Your task to perform on an android device: toggle data saver in the chrome app Image 0: 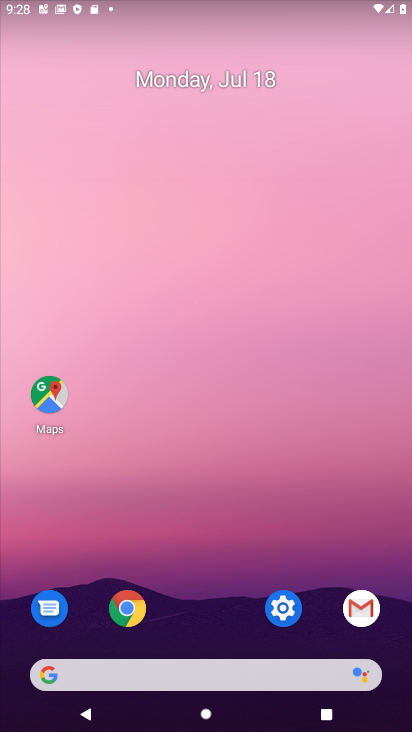
Step 0: click (147, 598)
Your task to perform on an android device: toggle data saver in the chrome app Image 1: 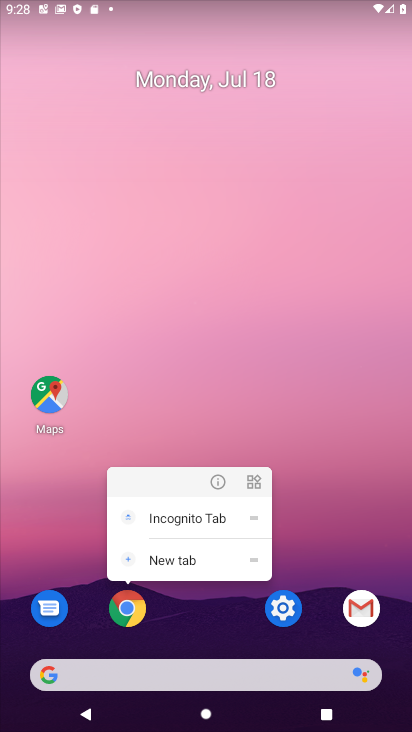
Step 1: click (115, 609)
Your task to perform on an android device: toggle data saver in the chrome app Image 2: 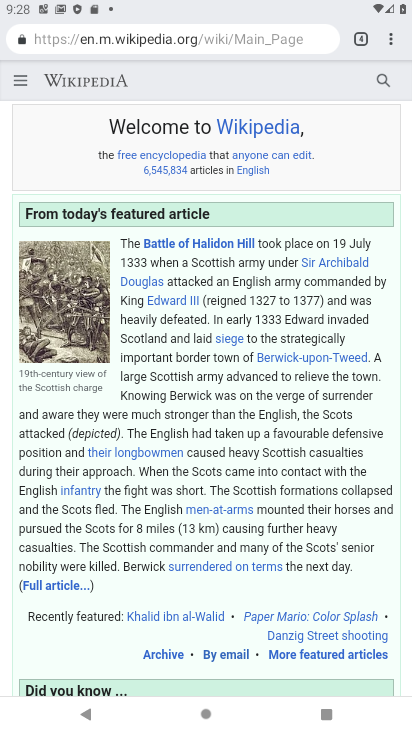
Step 2: click (387, 37)
Your task to perform on an android device: toggle data saver in the chrome app Image 3: 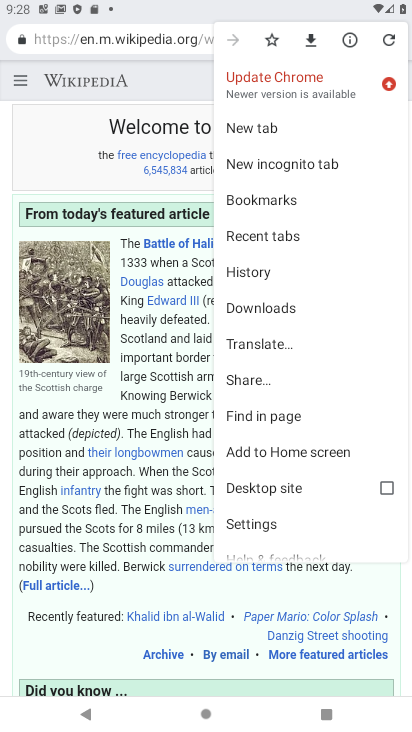
Step 3: click (250, 523)
Your task to perform on an android device: toggle data saver in the chrome app Image 4: 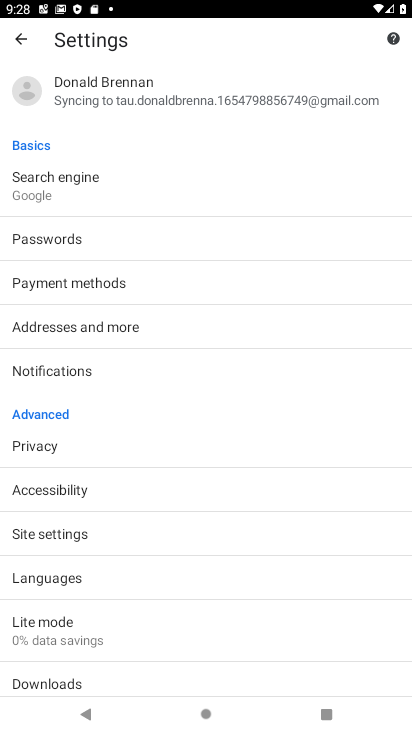
Step 4: click (67, 636)
Your task to perform on an android device: toggle data saver in the chrome app Image 5: 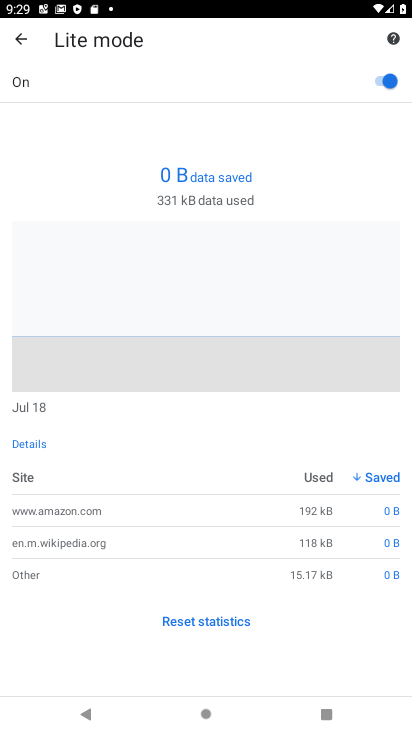
Step 5: task complete